Your task to perform on an android device: Empty the shopping cart on costco. Search for "dell xps" on costco, select the first entry, and add it to the cart. Image 0: 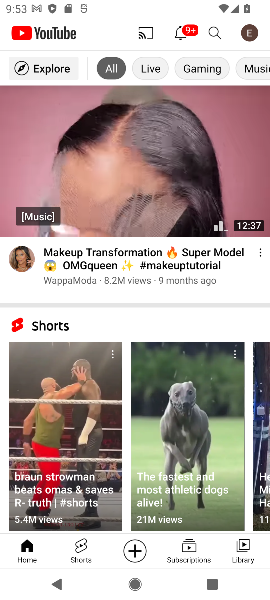
Step 0: task complete